Your task to perform on an android device: read, delete, or share a saved page in the chrome app Image 0: 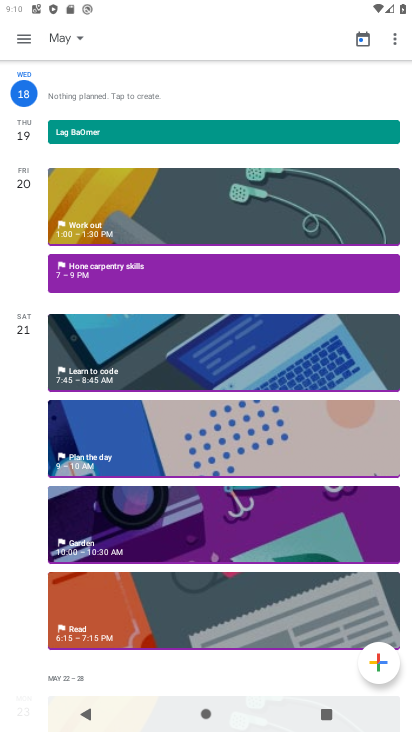
Step 0: press home button
Your task to perform on an android device: read, delete, or share a saved page in the chrome app Image 1: 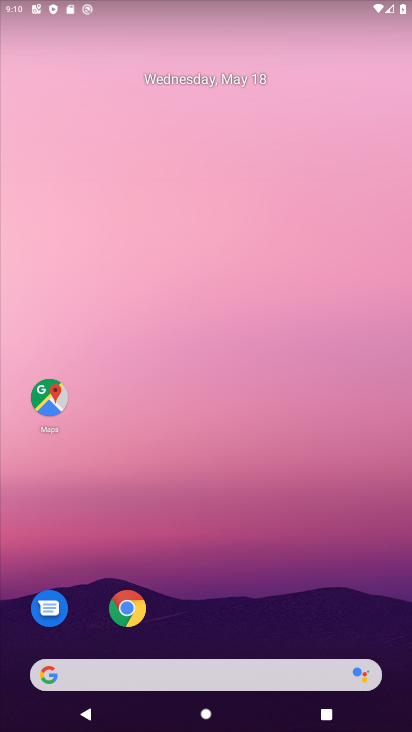
Step 1: click (127, 606)
Your task to perform on an android device: read, delete, or share a saved page in the chrome app Image 2: 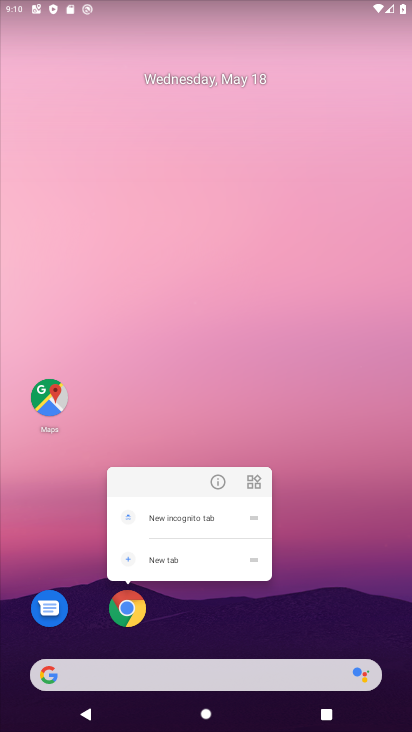
Step 2: click (128, 604)
Your task to perform on an android device: read, delete, or share a saved page in the chrome app Image 3: 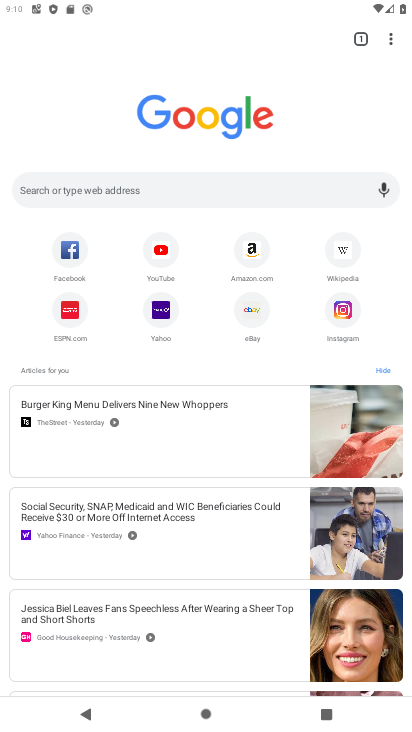
Step 3: click (72, 257)
Your task to perform on an android device: read, delete, or share a saved page in the chrome app Image 4: 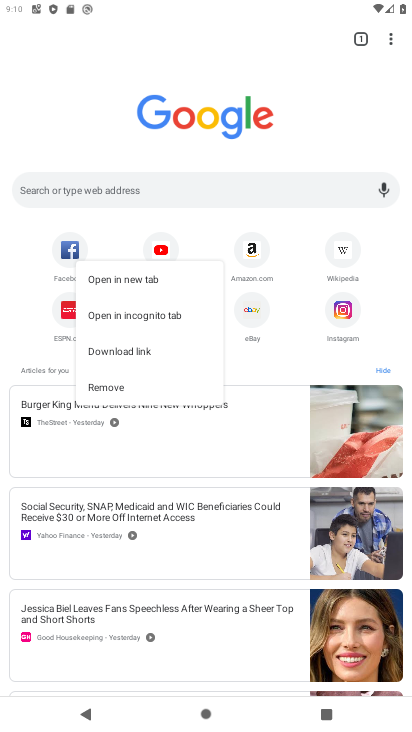
Step 4: click (149, 398)
Your task to perform on an android device: read, delete, or share a saved page in the chrome app Image 5: 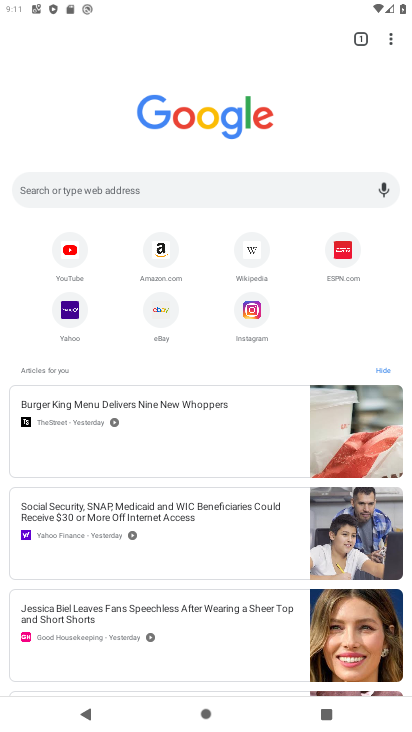
Step 5: task complete